Your task to perform on an android device: open a bookmark in the chrome app Image 0: 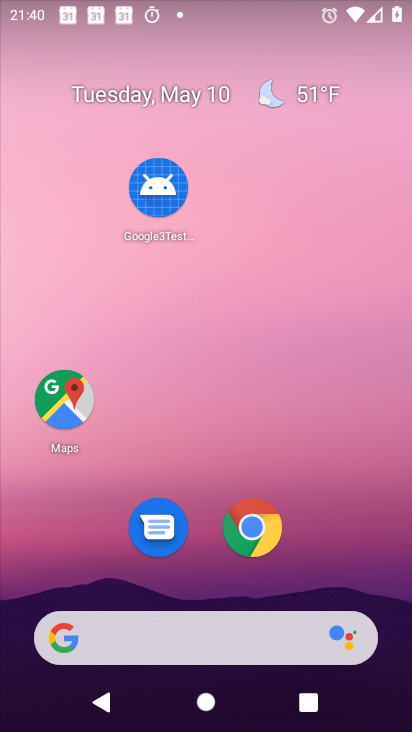
Step 0: drag from (223, 601) to (167, 10)
Your task to perform on an android device: open a bookmark in the chrome app Image 1: 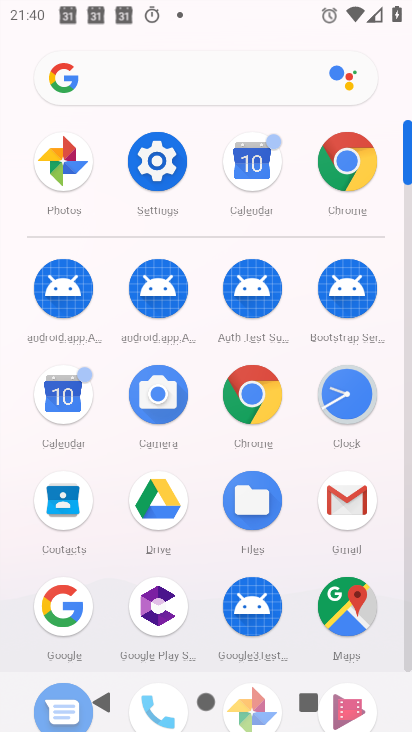
Step 1: click (350, 159)
Your task to perform on an android device: open a bookmark in the chrome app Image 2: 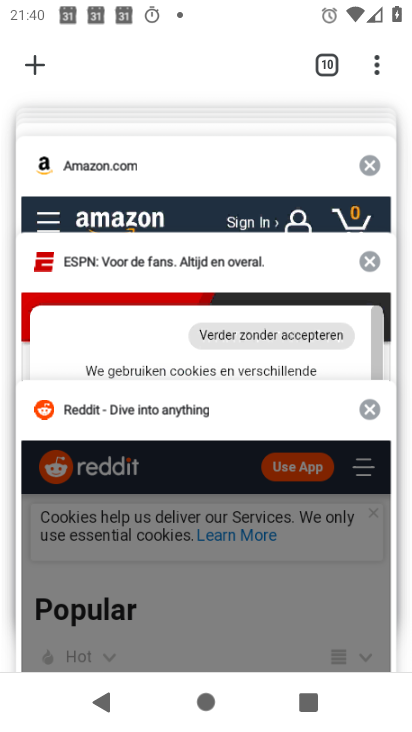
Step 2: click (376, 66)
Your task to perform on an android device: open a bookmark in the chrome app Image 3: 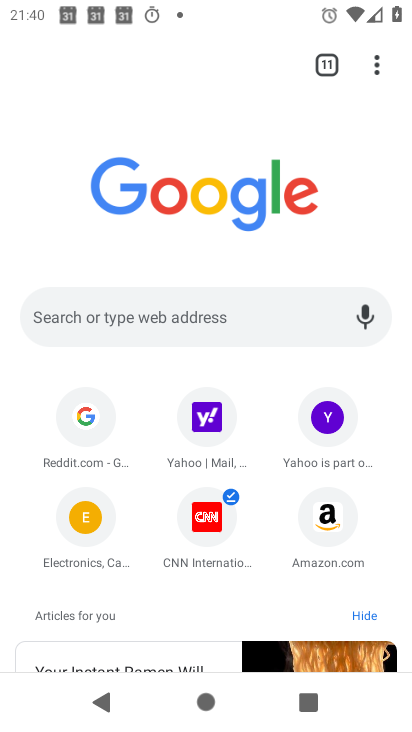
Step 3: click (370, 63)
Your task to perform on an android device: open a bookmark in the chrome app Image 4: 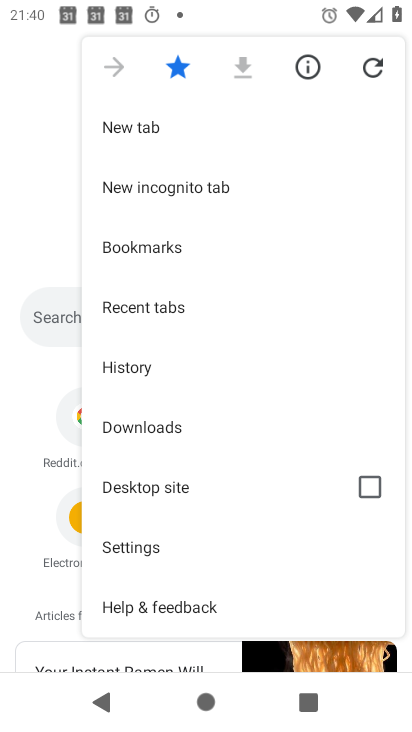
Step 4: click (136, 238)
Your task to perform on an android device: open a bookmark in the chrome app Image 5: 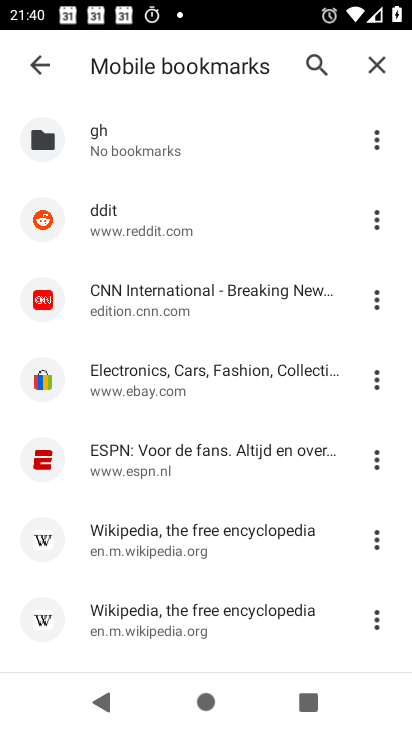
Step 5: task complete